Your task to perform on an android device: Open Google Image 0: 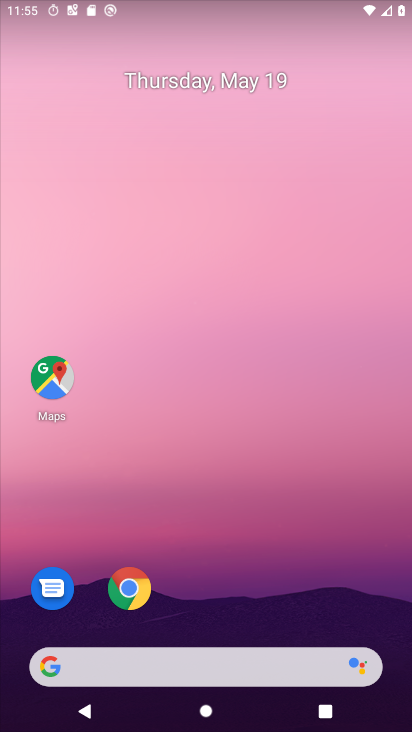
Step 0: press home button
Your task to perform on an android device: Open Google Image 1: 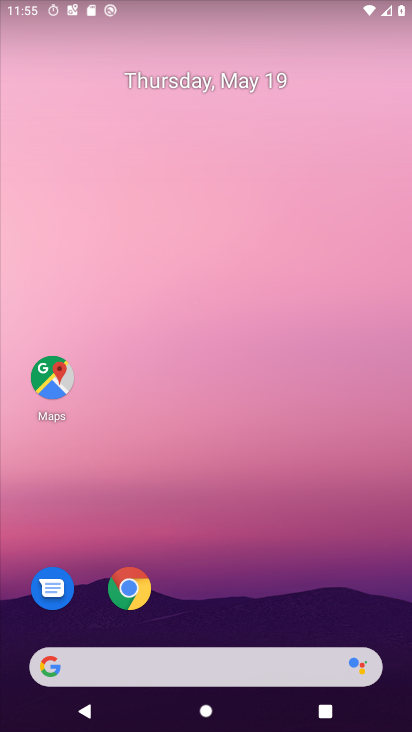
Step 1: drag from (148, 666) to (314, 211)
Your task to perform on an android device: Open Google Image 2: 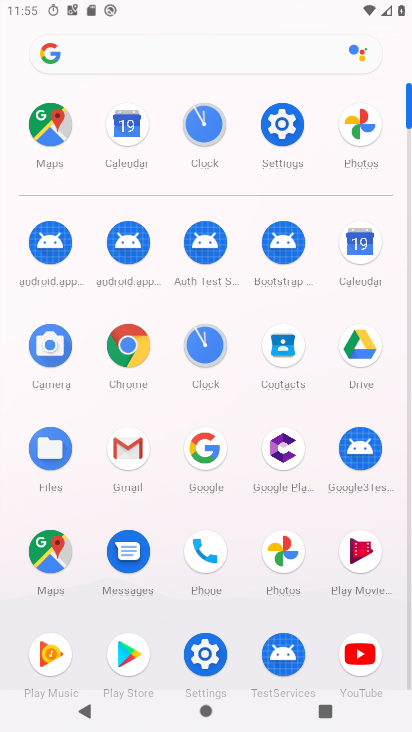
Step 2: click (213, 455)
Your task to perform on an android device: Open Google Image 3: 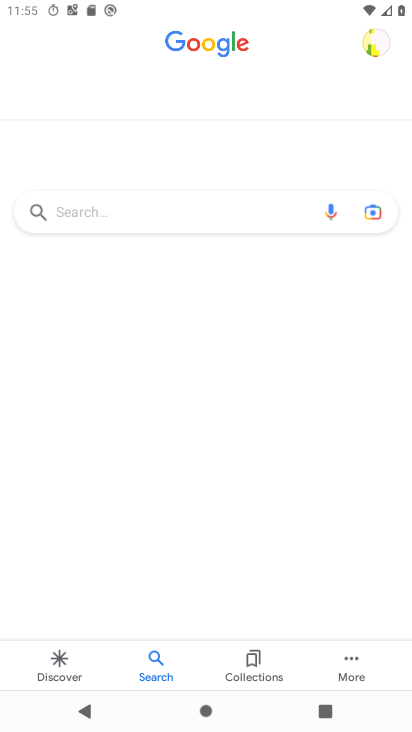
Step 3: click (72, 674)
Your task to perform on an android device: Open Google Image 4: 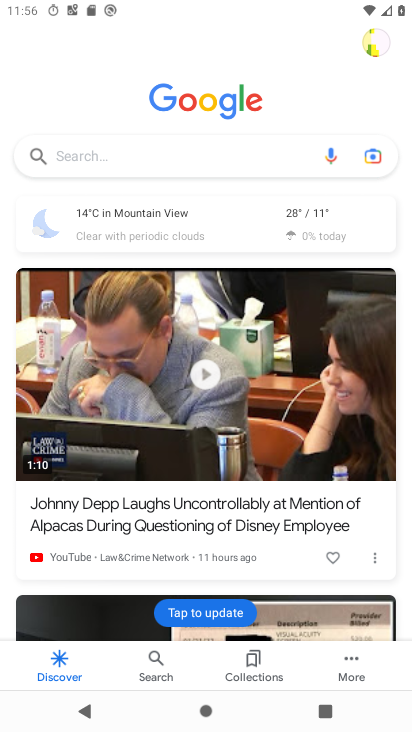
Step 4: task complete